Your task to perform on an android device: Go to calendar. Show me events next week Image 0: 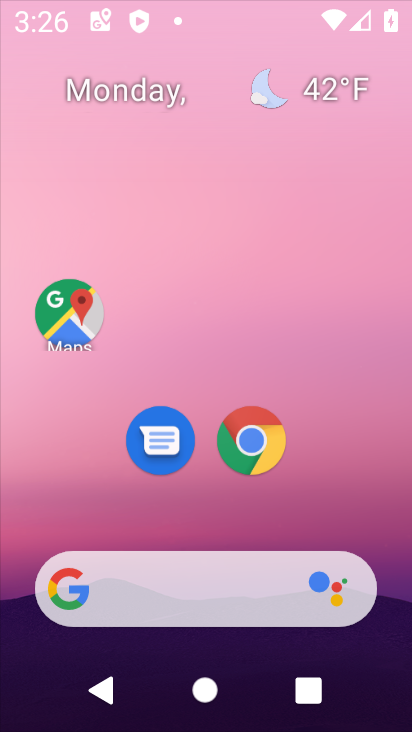
Step 0: click (243, 28)
Your task to perform on an android device: Go to calendar. Show me events next week Image 1: 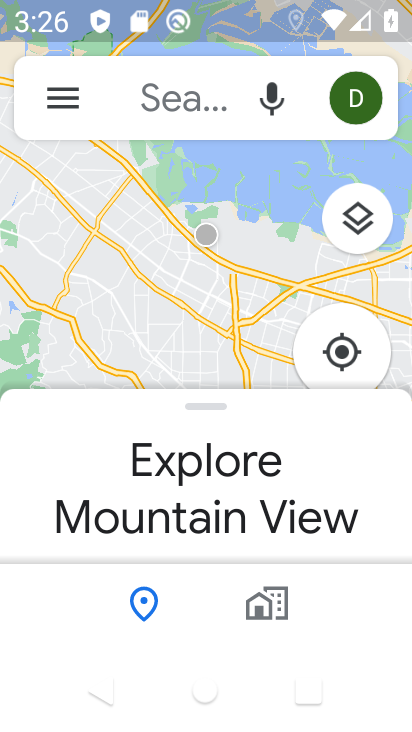
Step 1: press home button
Your task to perform on an android device: Go to calendar. Show me events next week Image 2: 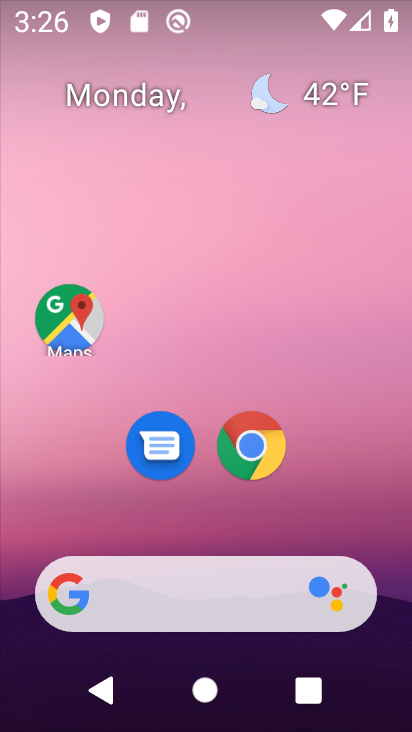
Step 2: drag from (9, 501) to (256, 17)
Your task to perform on an android device: Go to calendar. Show me events next week Image 3: 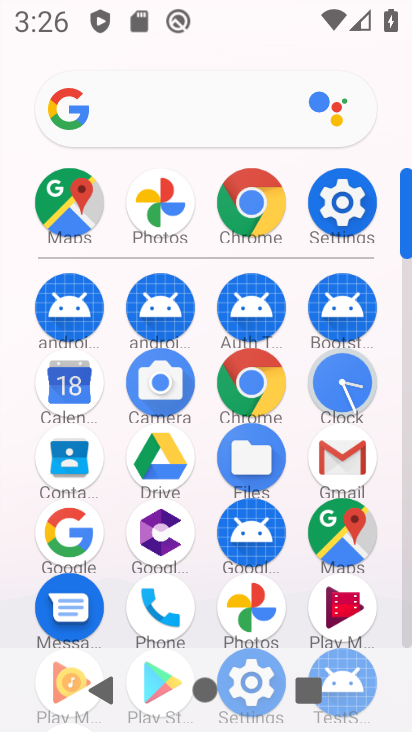
Step 3: click (61, 393)
Your task to perform on an android device: Go to calendar. Show me events next week Image 4: 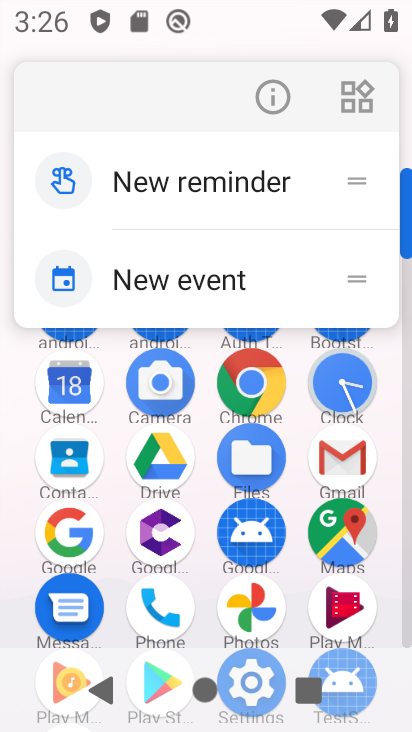
Step 4: click (61, 393)
Your task to perform on an android device: Go to calendar. Show me events next week Image 5: 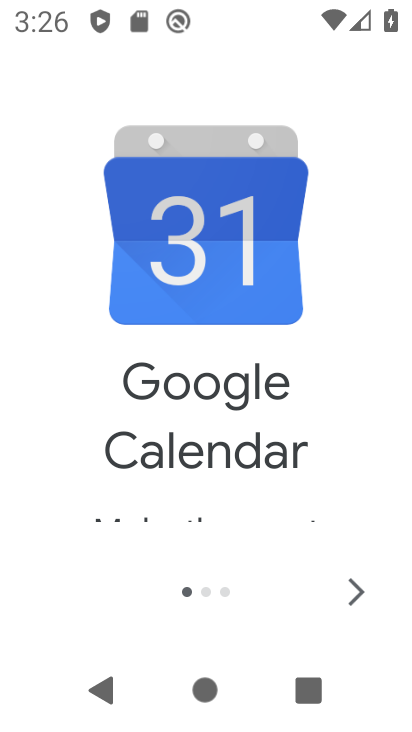
Step 5: click (357, 581)
Your task to perform on an android device: Go to calendar. Show me events next week Image 6: 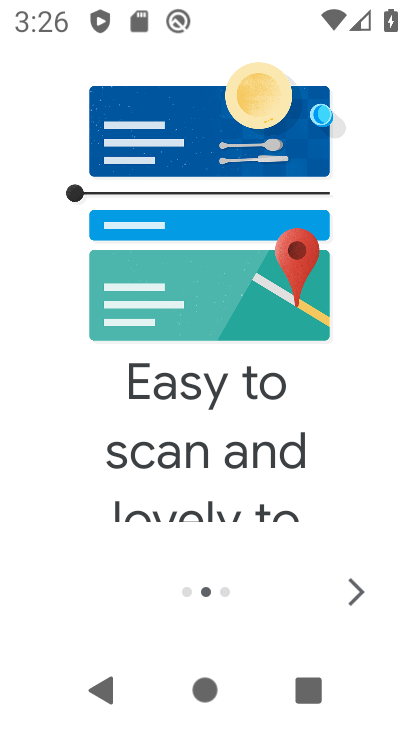
Step 6: click (357, 581)
Your task to perform on an android device: Go to calendar. Show me events next week Image 7: 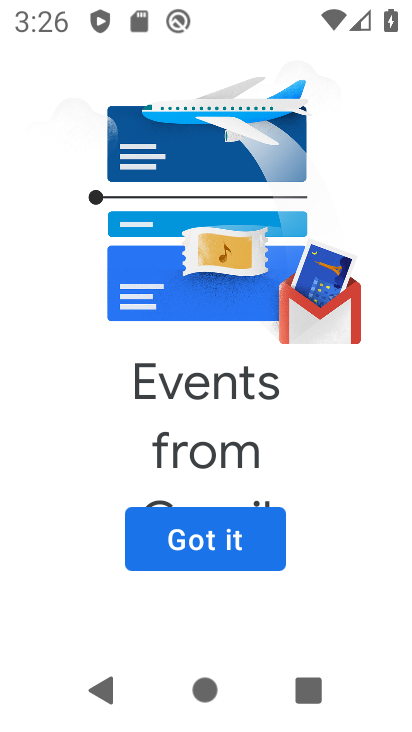
Step 7: click (357, 582)
Your task to perform on an android device: Go to calendar. Show me events next week Image 8: 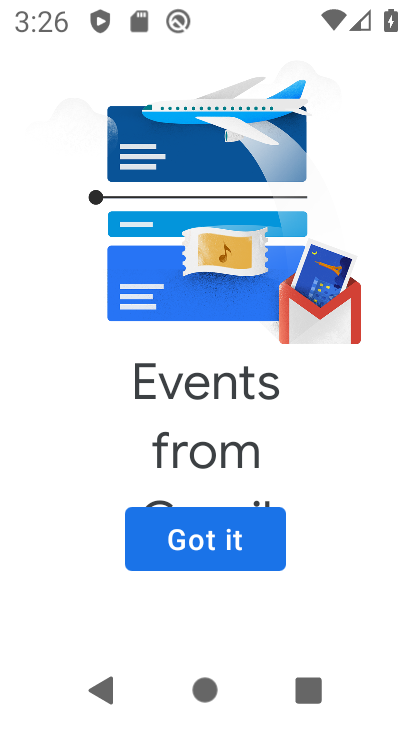
Step 8: click (217, 531)
Your task to perform on an android device: Go to calendar. Show me events next week Image 9: 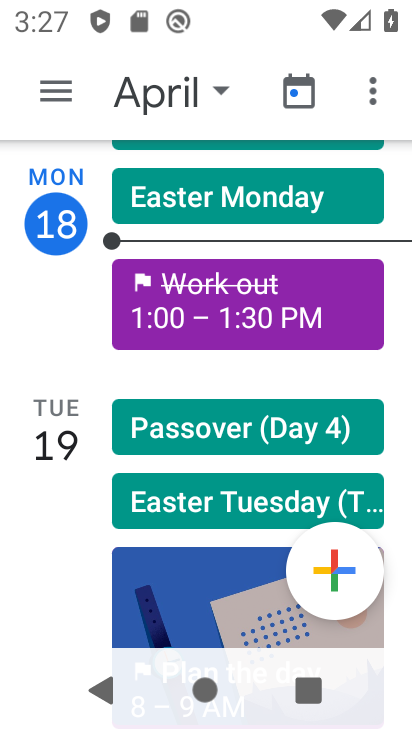
Step 9: click (171, 95)
Your task to perform on an android device: Go to calendar. Show me events next week Image 10: 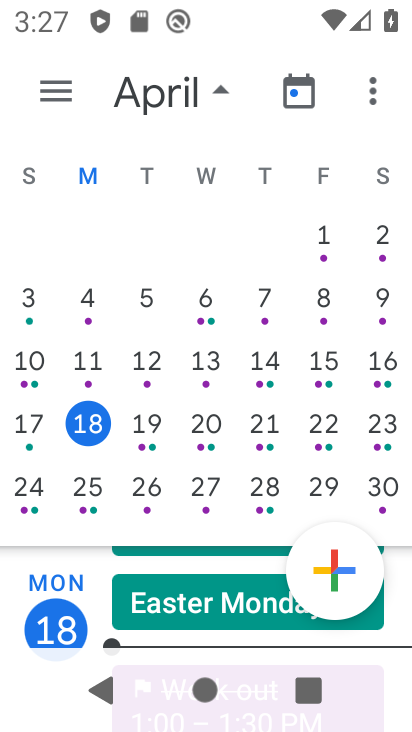
Step 10: click (87, 369)
Your task to perform on an android device: Go to calendar. Show me events next week Image 11: 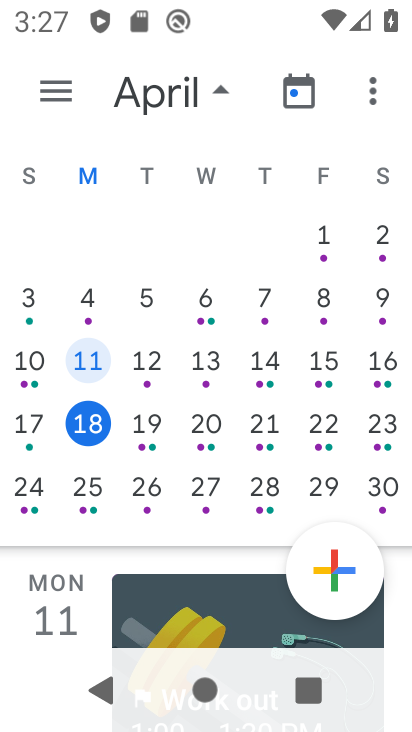
Step 11: click (352, 561)
Your task to perform on an android device: Go to calendar. Show me events next week Image 12: 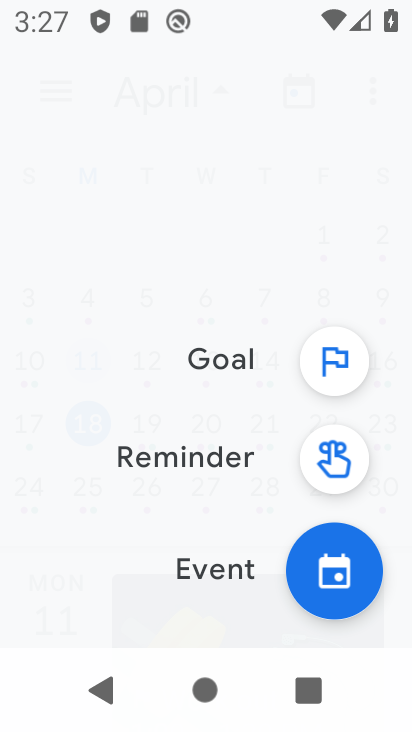
Step 12: click (216, 557)
Your task to perform on an android device: Go to calendar. Show me events next week Image 13: 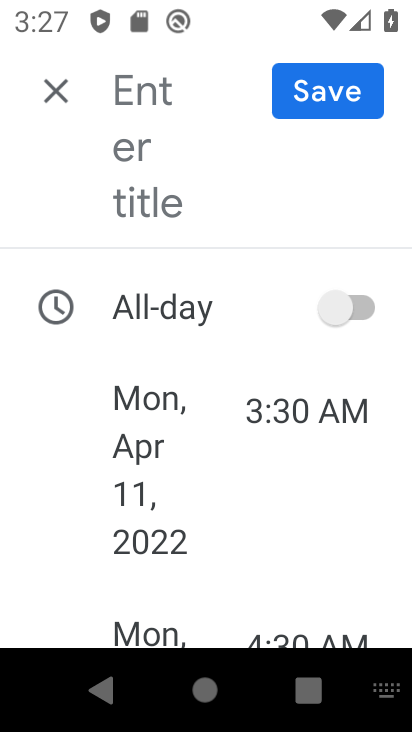
Step 13: type "School meet"
Your task to perform on an android device: Go to calendar. Show me events next week Image 14: 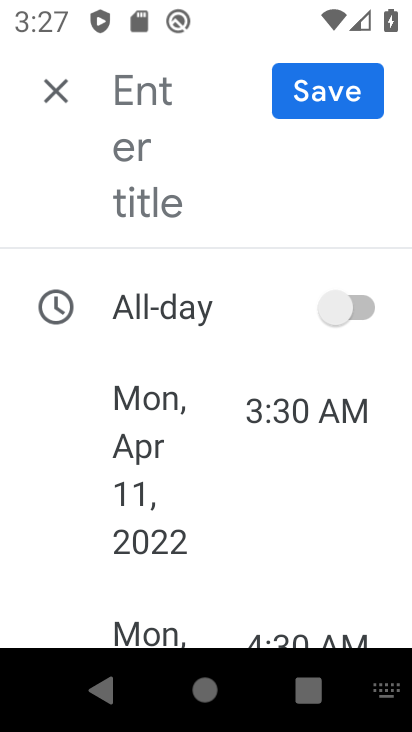
Step 14: click (359, 93)
Your task to perform on an android device: Go to calendar. Show me events next week Image 15: 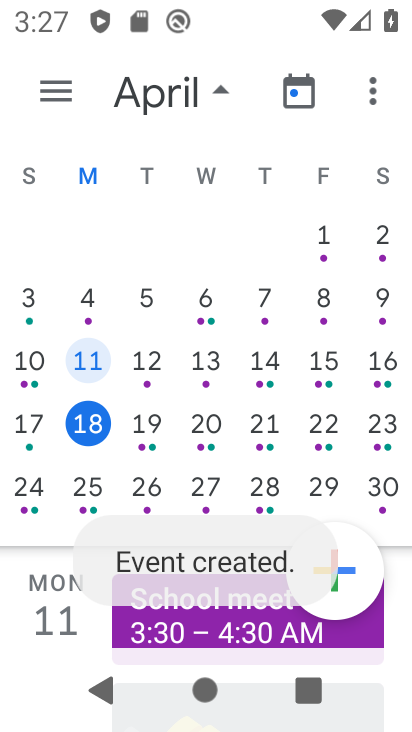
Step 15: task complete